Your task to perform on an android device: toggle javascript in the chrome app Image 0: 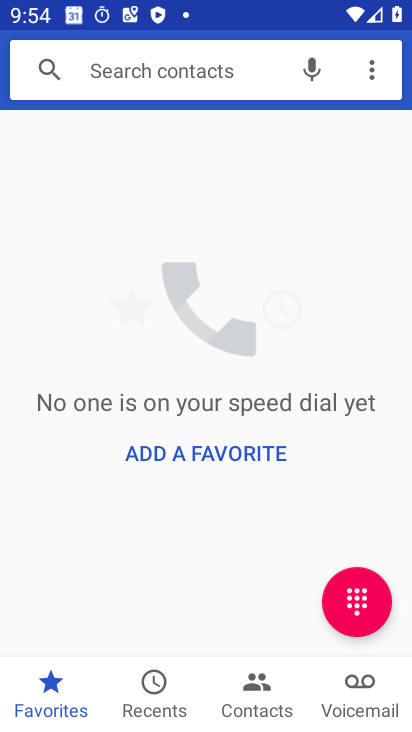
Step 0: press home button
Your task to perform on an android device: toggle javascript in the chrome app Image 1: 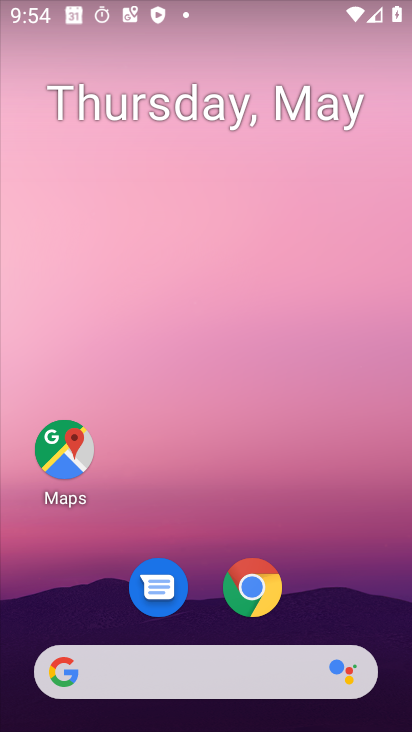
Step 1: click (250, 591)
Your task to perform on an android device: toggle javascript in the chrome app Image 2: 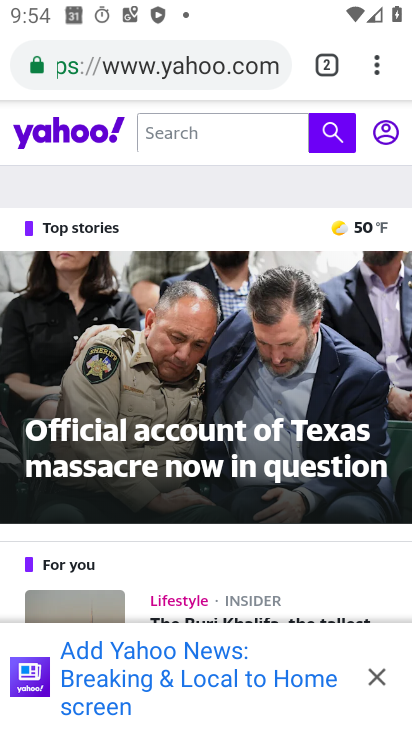
Step 2: click (377, 65)
Your task to perform on an android device: toggle javascript in the chrome app Image 3: 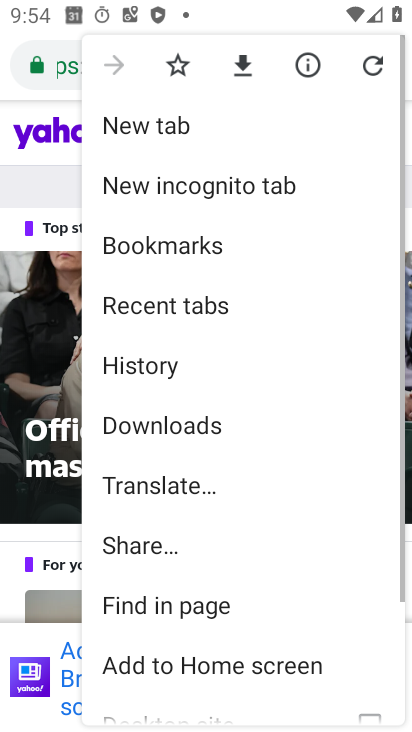
Step 3: drag from (255, 592) to (266, 136)
Your task to perform on an android device: toggle javascript in the chrome app Image 4: 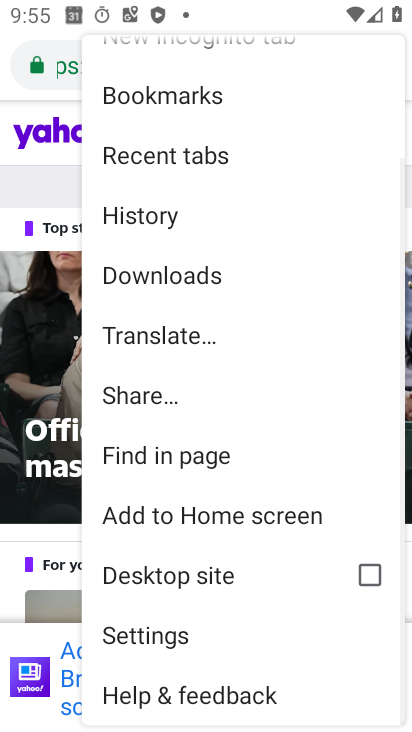
Step 4: click (148, 636)
Your task to perform on an android device: toggle javascript in the chrome app Image 5: 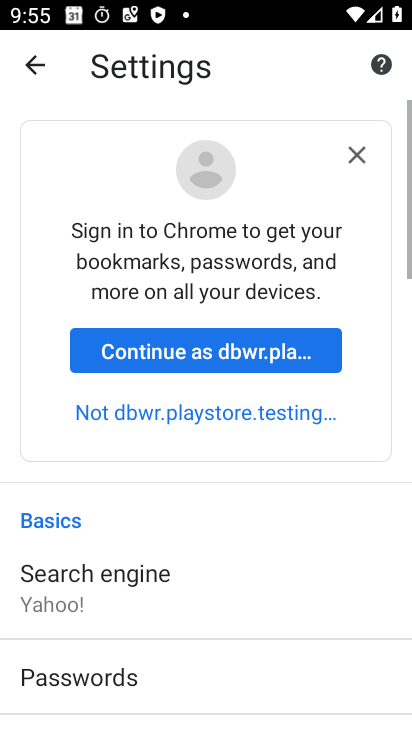
Step 5: drag from (200, 651) to (212, 242)
Your task to perform on an android device: toggle javascript in the chrome app Image 6: 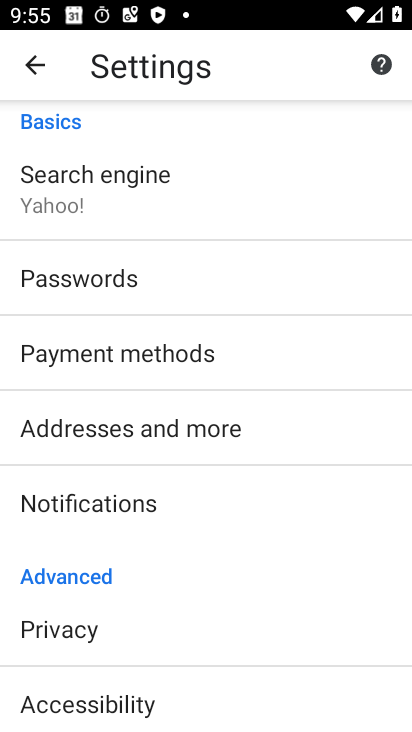
Step 6: drag from (202, 570) to (204, 255)
Your task to perform on an android device: toggle javascript in the chrome app Image 7: 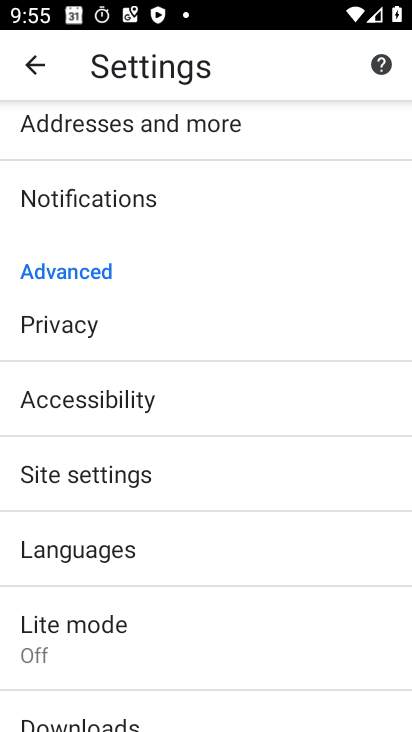
Step 7: click (110, 478)
Your task to perform on an android device: toggle javascript in the chrome app Image 8: 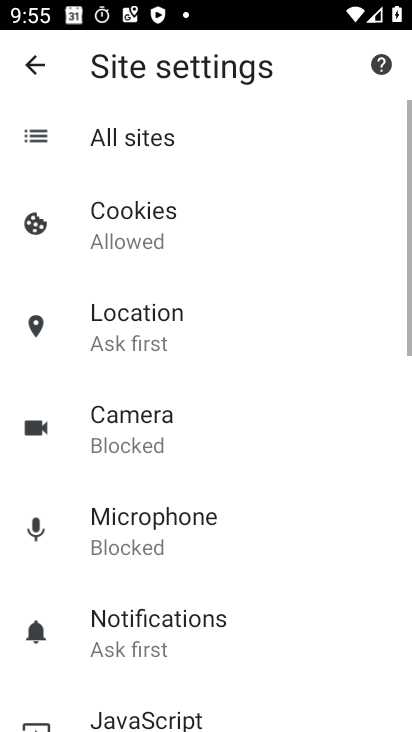
Step 8: drag from (274, 586) to (253, 224)
Your task to perform on an android device: toggle javascript in the chrome app Image 9: 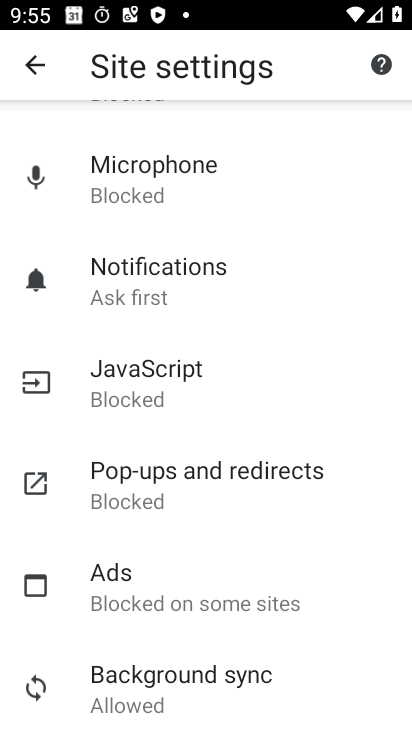
Step 9: click (135, 393)
Your task to perform on an android device: toggle javascript in the chrome app Image 10: 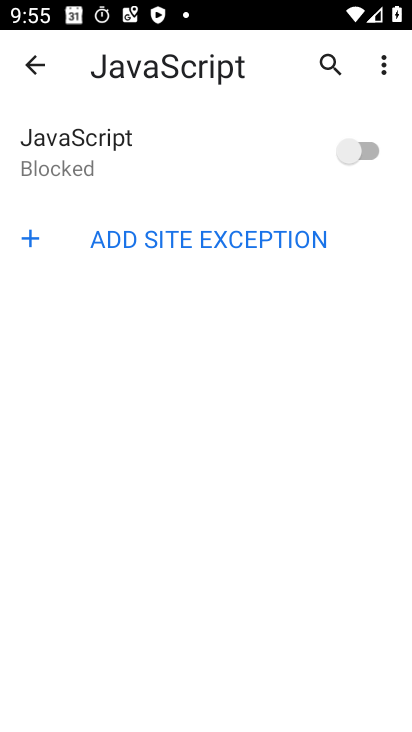
Step 10: click (358, 152)
Your task to perform on an android device: toggle javascript in the chrome app Image 11: 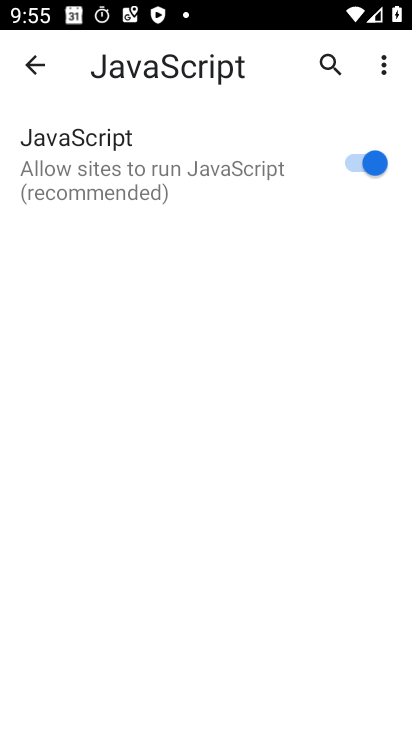
Step 11: task complete